Your task to perform on an android device: Open my contact list Image 0: 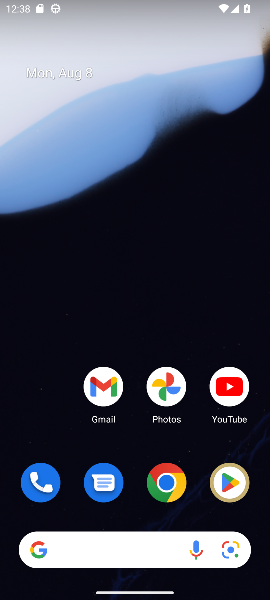
Step 0: drag from (169, 535) to (195, 280)
Your task to perform on an android device: Open my contact list Image 1: 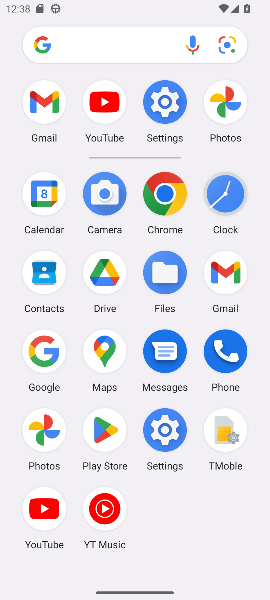
Step 1: click (47, 271)
Your task to perform on an android device: Open my contact list Image 2: 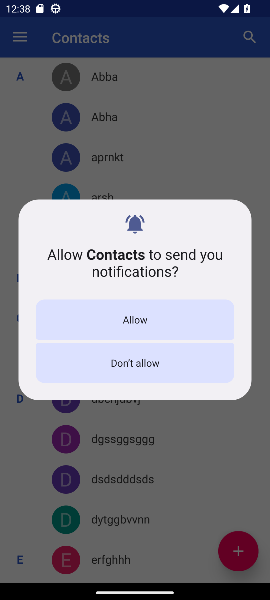
Step 2: click (168, 361)
Your task to perform on an android device: Open my contact list Image 3: 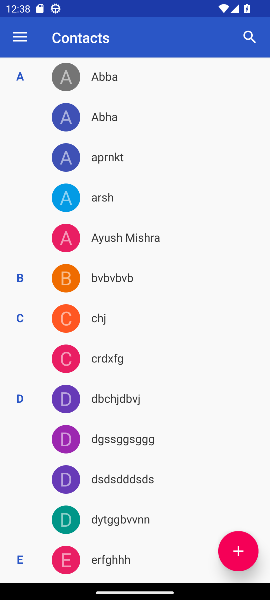
Step 3: task complete